Your task to perform on an android device: find which apps use the phone's location Image 0: 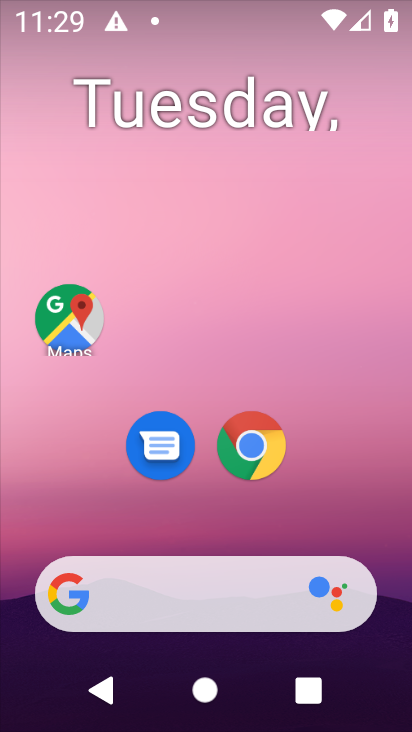
Step 0: drag from (208, 380) to (271, 31)
Your task to perform on an android device: find which apps use the phone's location Image 1: 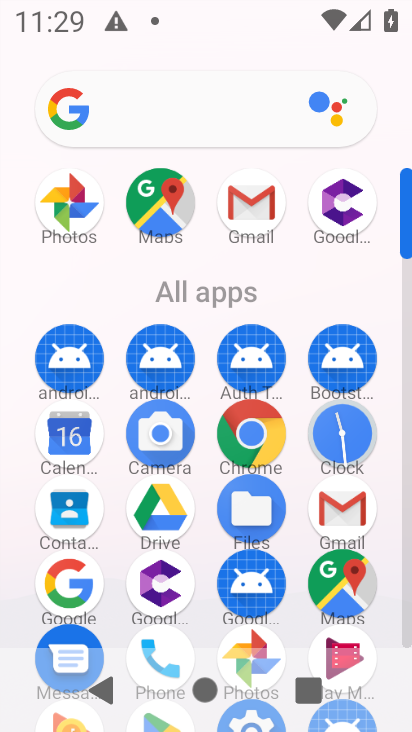
Step 1: drag from (184, 630) to (263, 0)
Your task to perform on an android device: find which apps use the phone's location Image 2: 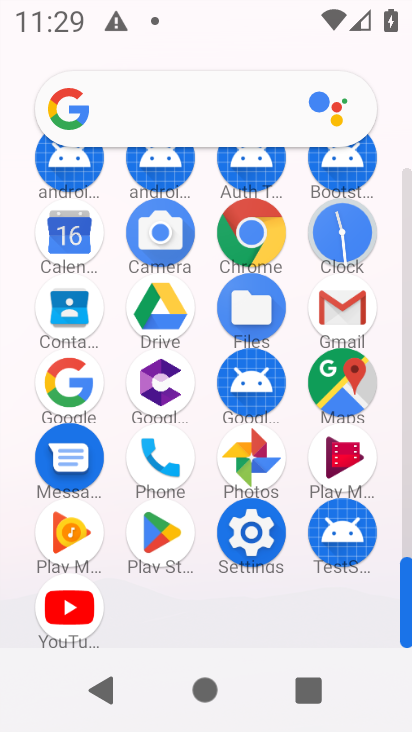
Step 2: click (252, 545)
Your task to perform on an android device: find which apps use the phone's location Image 3: 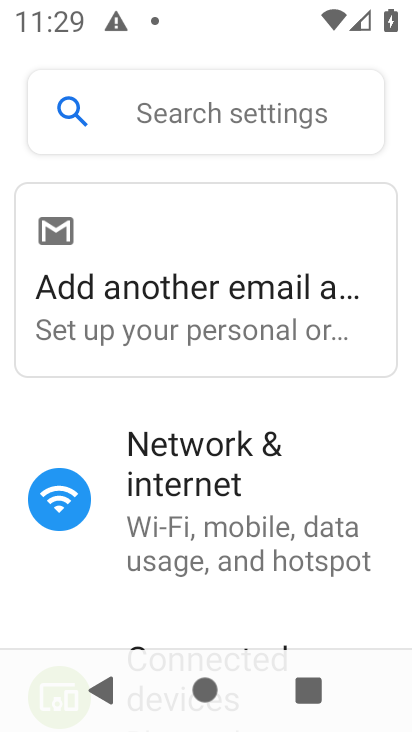
Step 3: drag from (213, 590) to (317, 9)
Your task to perform on an android device: find which apps use the phone's location Image 4: 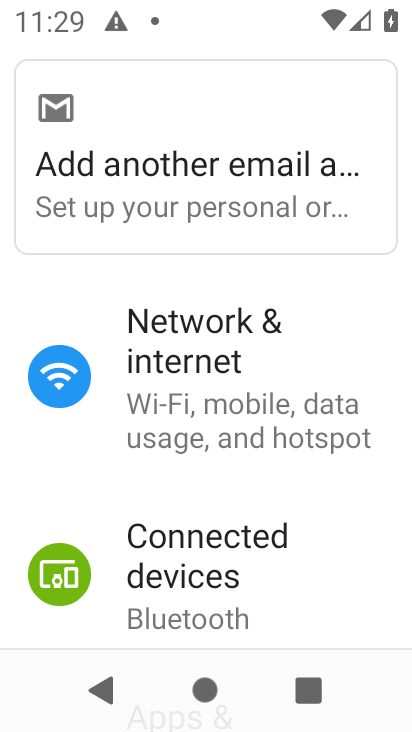
Step 4: drag from (232, 522) to (287, 33)
Your task to perform on an android device: find which apps use the phone's location Image 5: 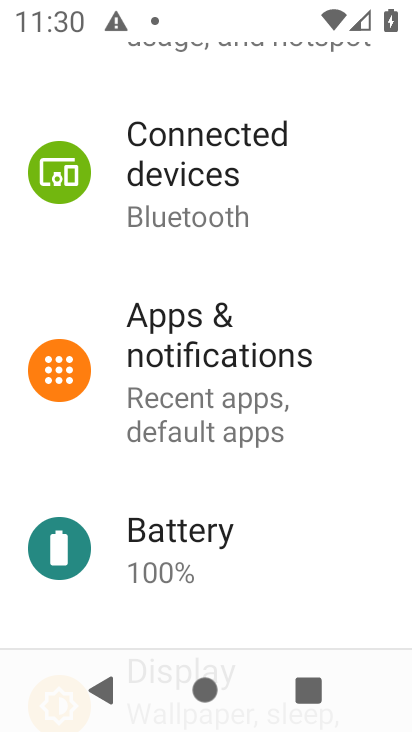
Step 5: drag from (267, 210) to (282, 6)
Your task to perform on an android device: find which apps use the phone's location Image 6: 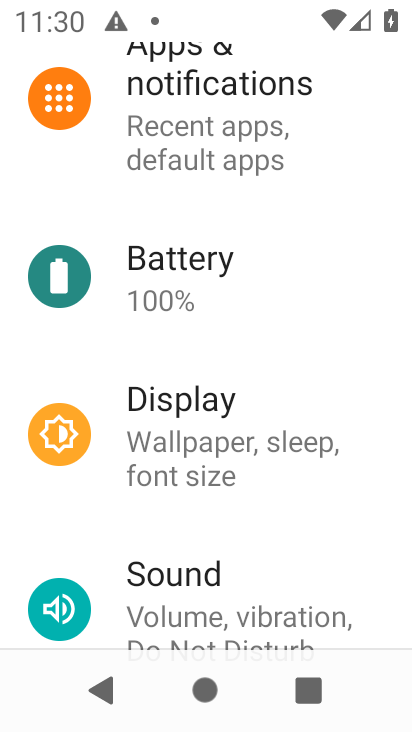
Step 6: drag from (181, 587) to (286, 1)
Your task to perform on an android device: find which apps use the phone's location Image 7: 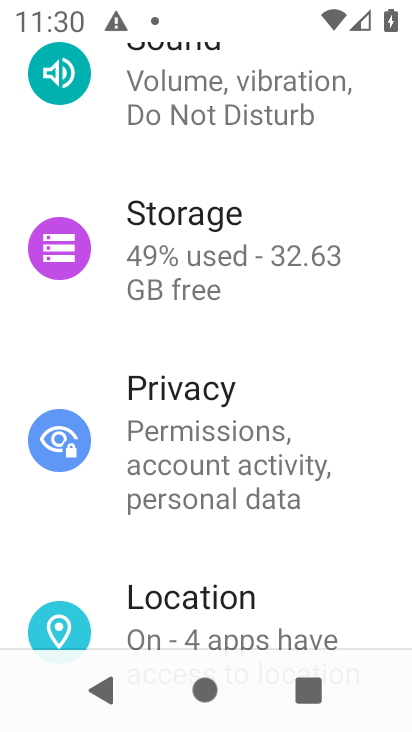
Step 7: click (182, 631)
Your task to perform on an android device: find which apps use the phone's location Image 8: 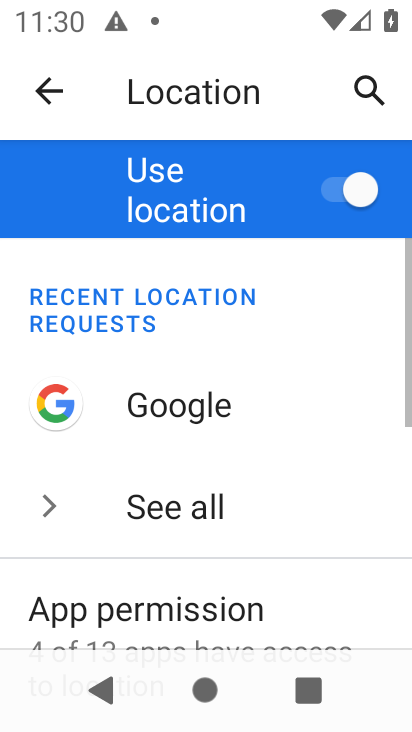
Step 8: drag from (208, 608) to (286, 161)
Your task to perform on an android device: find which apps use the phone's location Image 9: 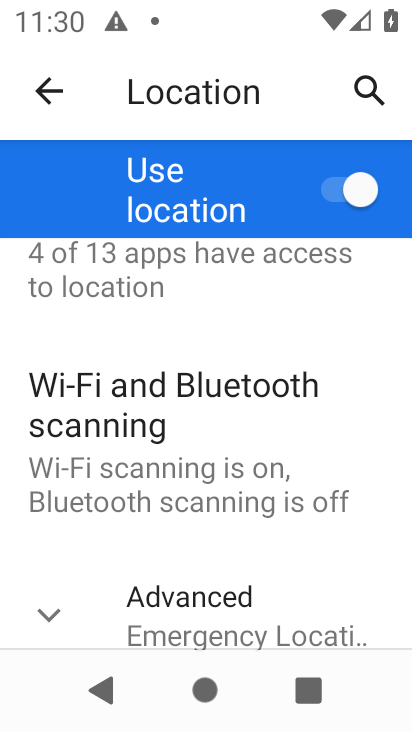
Step 9: click (98, 271)
Your task to perform on an android device: find which apps use the phone's location Image 10: 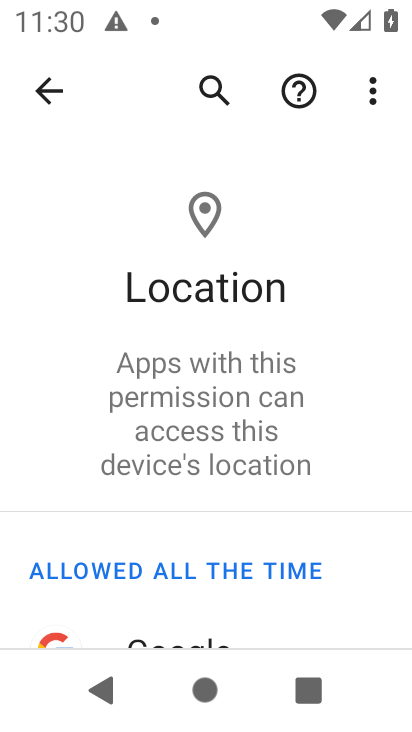
Step 10: task complete